Your task to perform on an android device: turn off picture-in-picture Image 0: 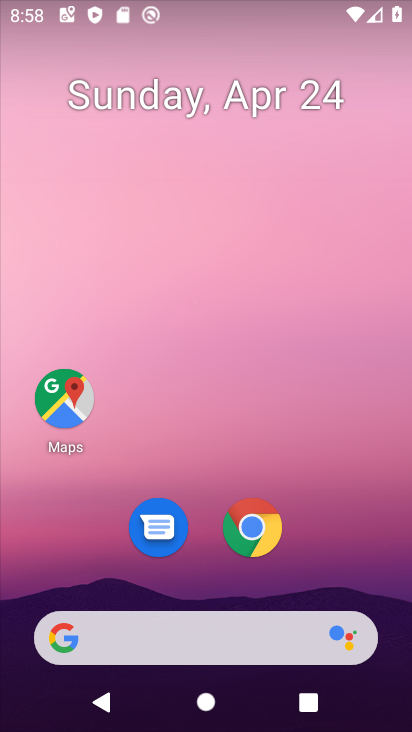
Step 0: drag from (214, 497) to (269, 94)
Your task to perform on an android device: turn off picture-in-picture Image 1: 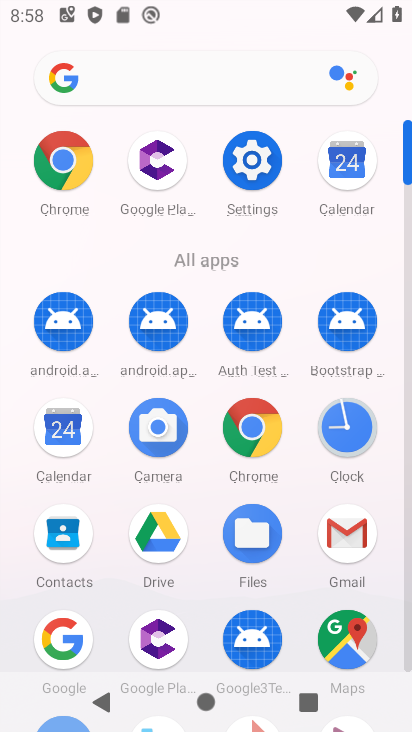
Step 1: click (253, 157)
Your task to perform on an android device: turn off picture-in-picture Image 2: 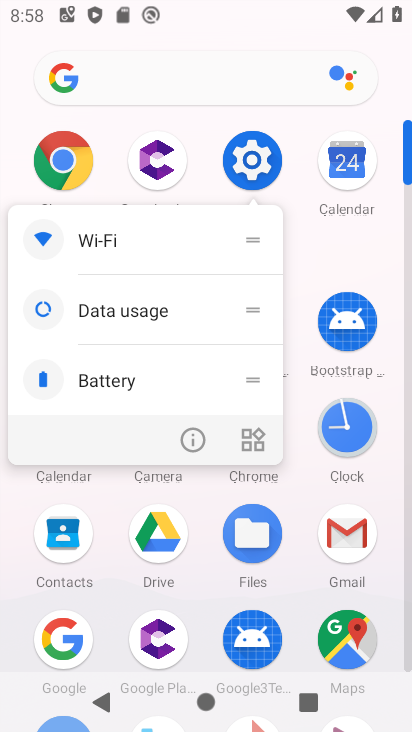
Step 2: click (249, 162)
Your task to perform on an android device: turn off picture-in-picture Image 3: 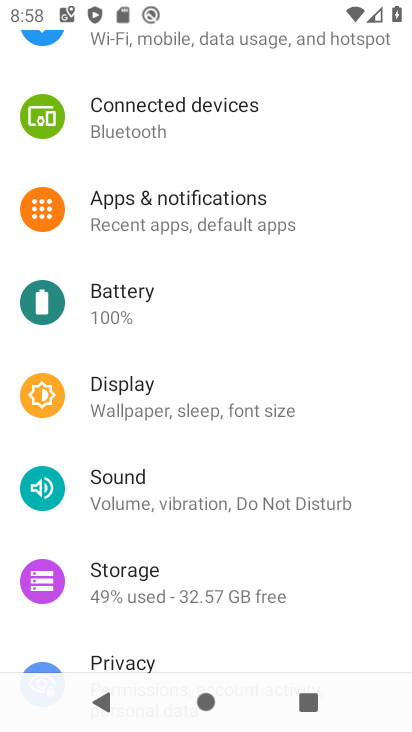
Step 3: drag from (239, 201) to (158, 510)
Your task to perform on an android device: turn off picture-in-picture Image 4: 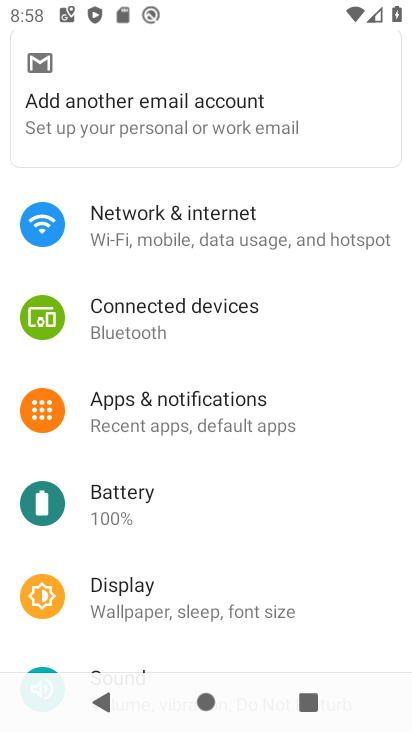
Step 4: click (177, 423)
Your task to perform on an android device: turn off picture-in-picture Image 5: 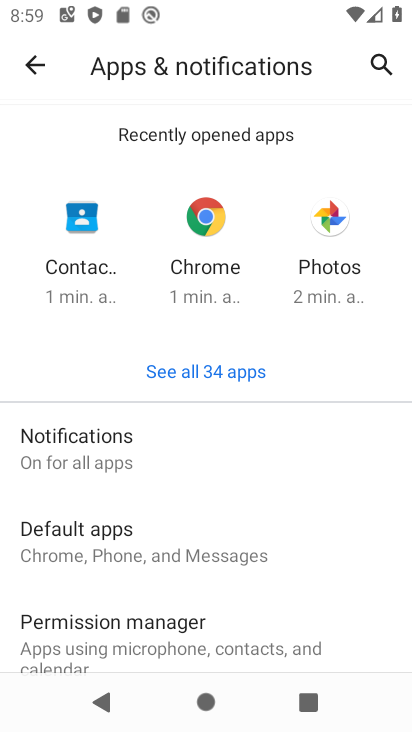
Step 5: click (139, 444)
Your task to perform on an android device: turn off picture-in-picture Image 6: 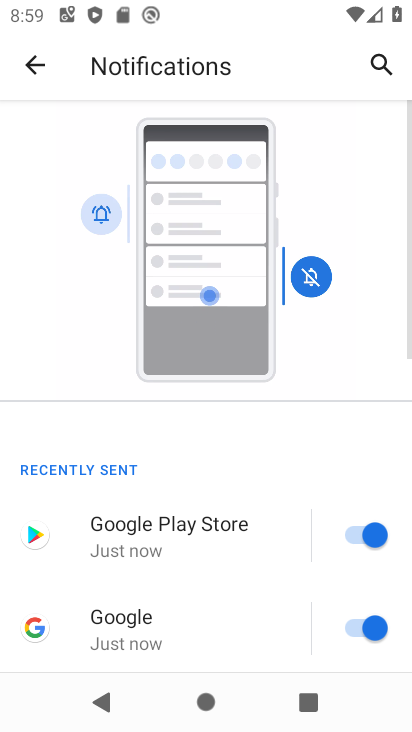
Step 6: drag from (172, 559) to (320, 69)
Your task to perform on an android device: turn off picture-in-picture Image 7: 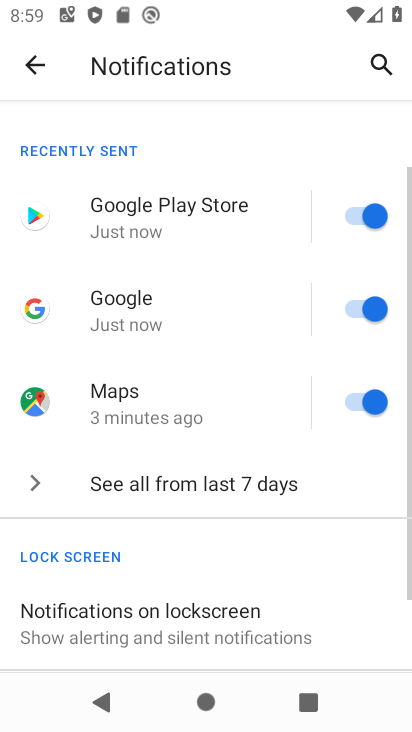
Step 7: drag from (184, 579) to (295, 146)
Your task to perform on an android device: turn off picture-in-picture Image 8: 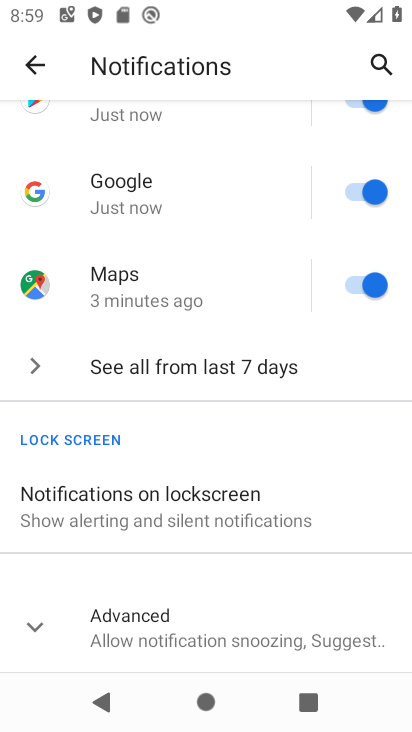
Step 8: click (186, 622)
Your task to perform on an android device: turn off picture-in-picture Image 9: 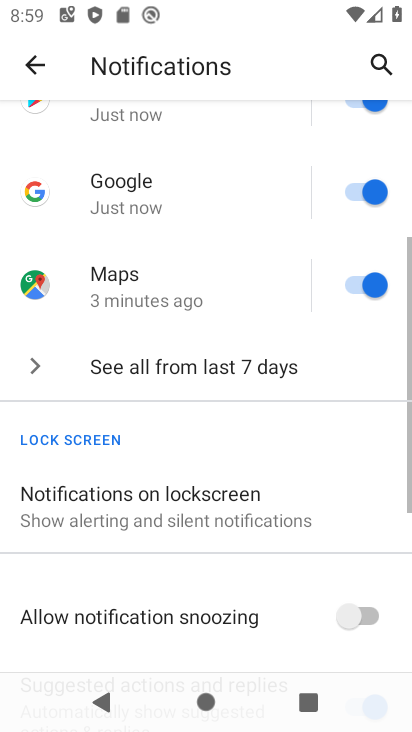
Step 9: drag from (184, 627) to (282, 91)
Your task to perform on an android device: turn off picture-in-picture Image 10: 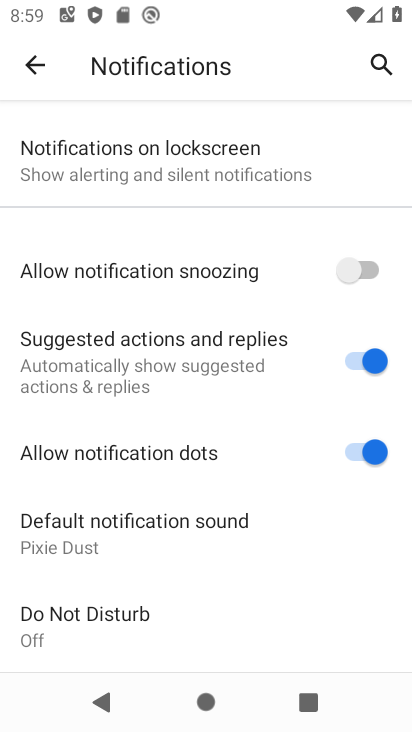
Step 10: drag from (192, 563) to (305, 65)
Your task to perform on an android device: turn off picture-in-picture Image 11: 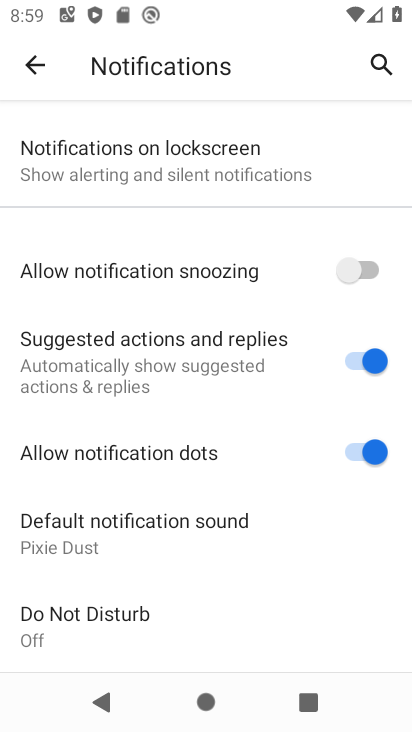
Step 11: drag from (245, 215) to (241, 471)
Your task to perform on an android device: turn off picture-in-picture Image 12: 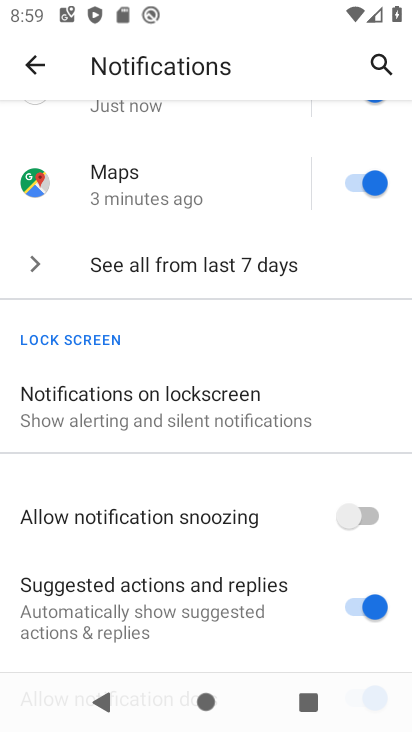
Step 12: drag from (203, 545) to (281, 82)
Your task to perform on an android device: turn off picture-in-picture Image 13: 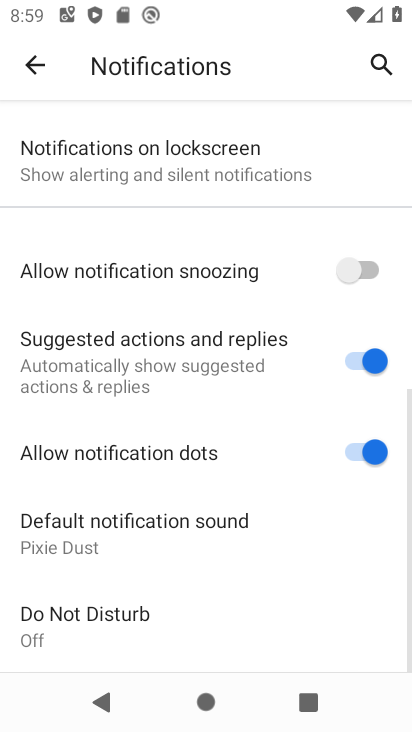
Step 13: drag from (215, 564) to (302, 175)
Your task to perform on an android device: turn off picture-in-picture Image 14: 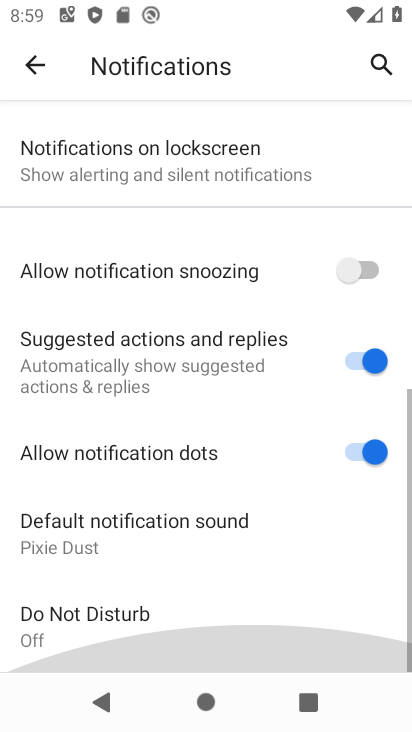
Step 14: click (40, 57)
Your task to perform on an android device: turn off picture-in-picture Image 15: 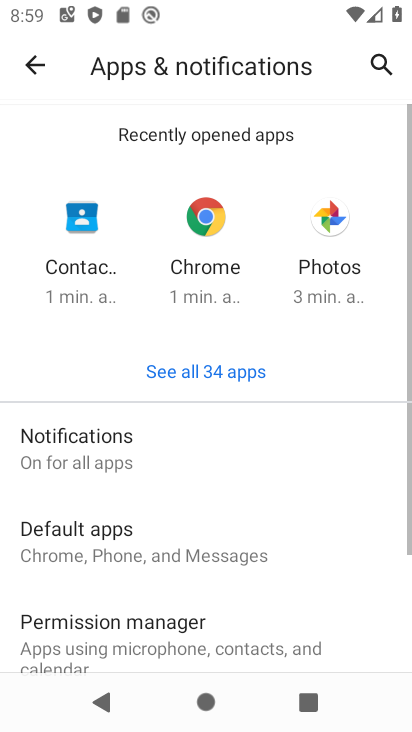
Step 15: drag from (183, 630) to (316, 118)
Your task to perform on an android device: turn off picture-in-picture Image 16: 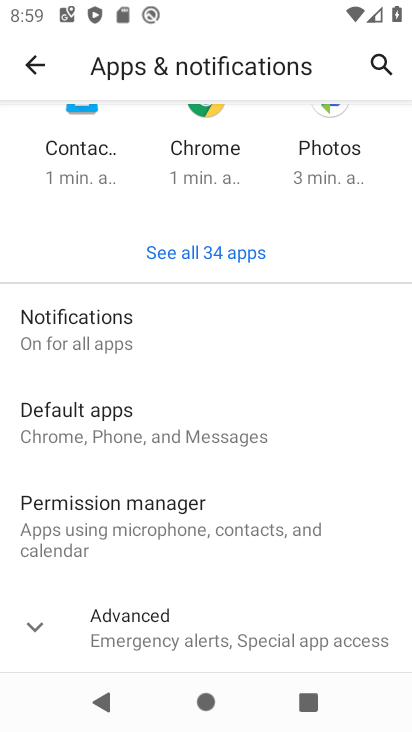
Step 16: click (237, 633)
Your task to perform on an android device: turn off picture-in-picture Image 17: 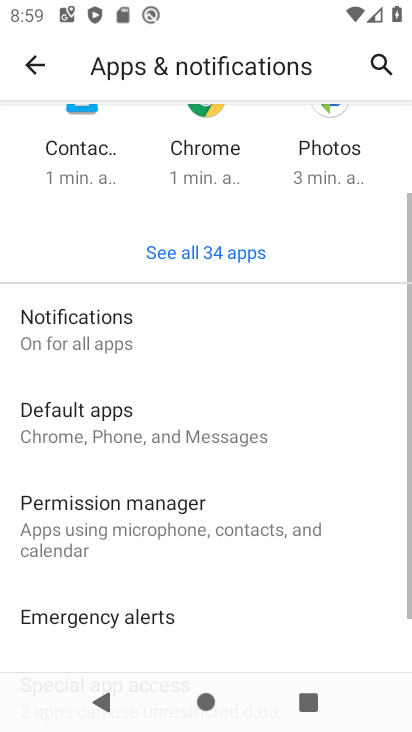
Step 17: drag from (235, 578) to (313, 144)
Your task to perform on an android device: turn off picture-in-picture Image 18: 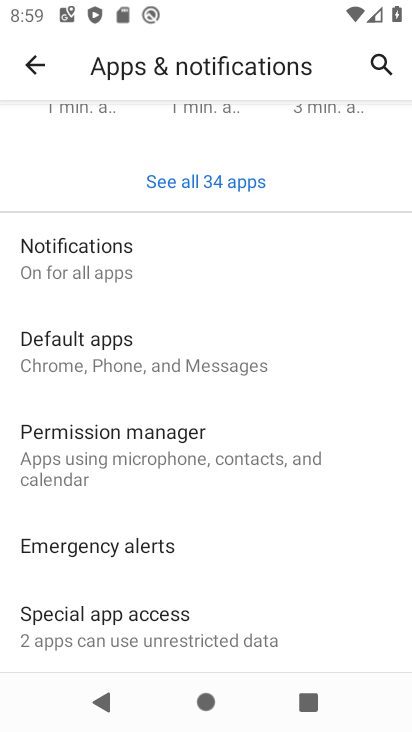
Step 18: drag from (214, 630) to (325, 113)
Your task to perform on an android device: turn off picture-in-picture Image 19: 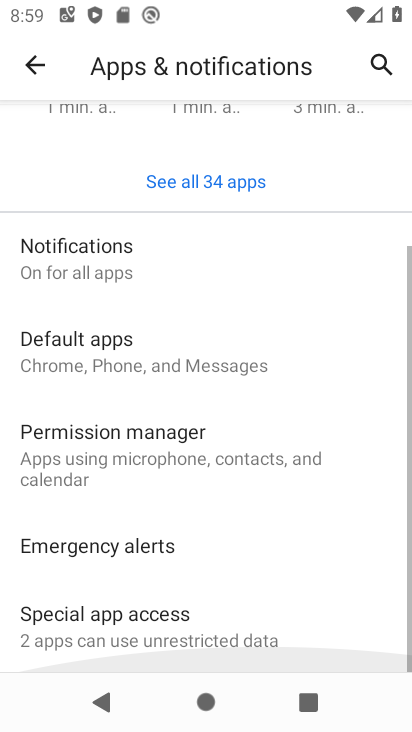
Step 19: click (156, 621)
Your task to perform on an android device: turn off picture-in-picture Image 20: 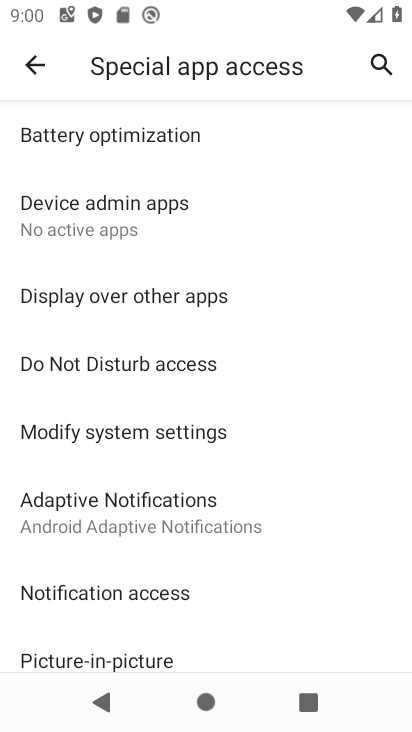
Step 20: drag from (125, 611) to (220, 289)
Your task to perform on an android device: turn off picture-in-picture Image 21: 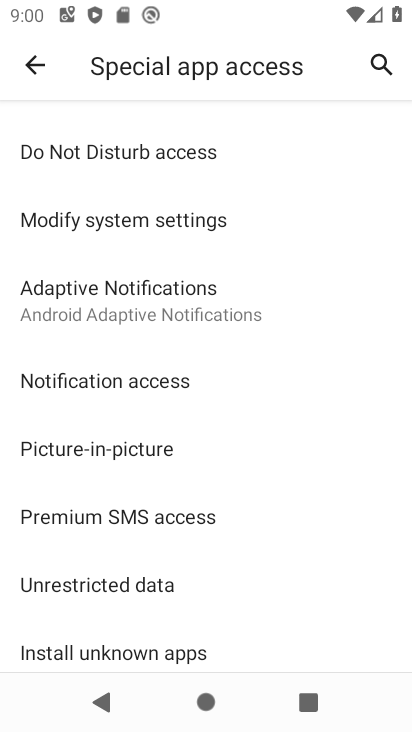
Step 21: click (110, 454)
Your task to perform on an android device: turn off picture-in-picture Image 22: 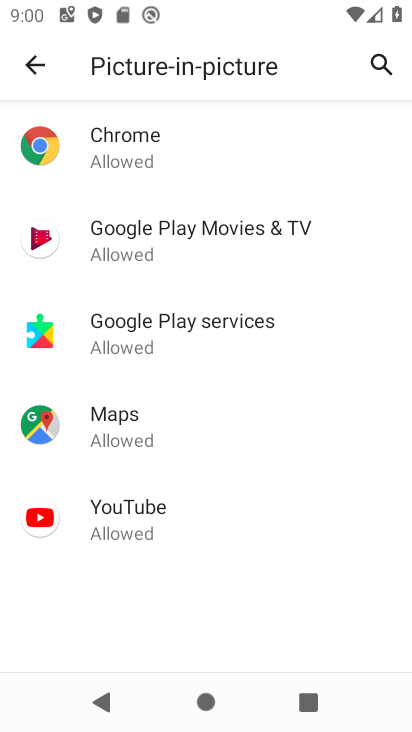
Step 22: click (130, 154)
Your task to perform on an android device: turn off picture-in-picture Image 23: 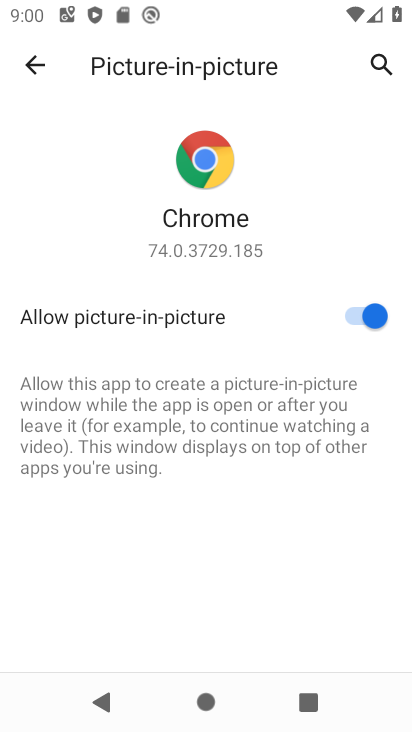
Step 23: click (375, 316)
Your task to perform on an android device: turn off picture-in-picture Image 24: 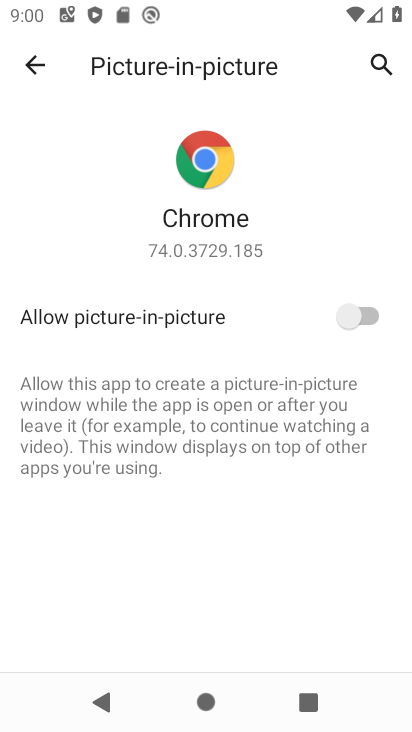
Step 24: task complete